Your task to perform on an android device: change the clock display to digital Image 0: 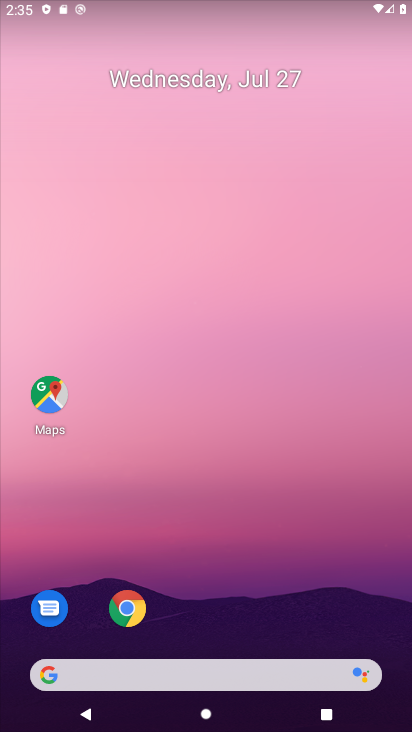
Step 0: drag from (234, 577) to (290, 10)
Your task to perform on an android device: change the clock display to digital Image 1: 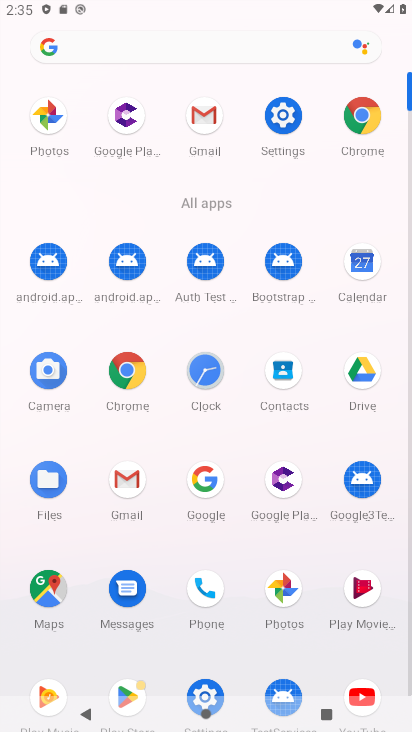
Step 1: click (197, 369)
Your task to perform on an android device: change the clock display to digital Image 2: 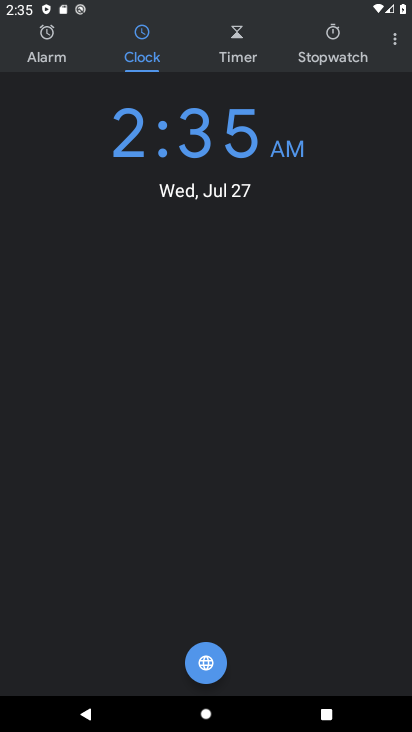
Step 2: click (395, 33)
Your task to perform on an android device: change the clock display to digital Image 3: 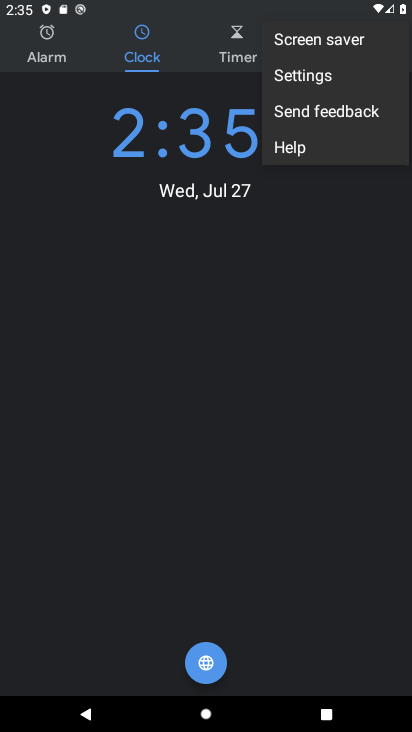
Step 3: click (322, 75)
Your task to perform on an android device: change the clock display to digital Image 4: 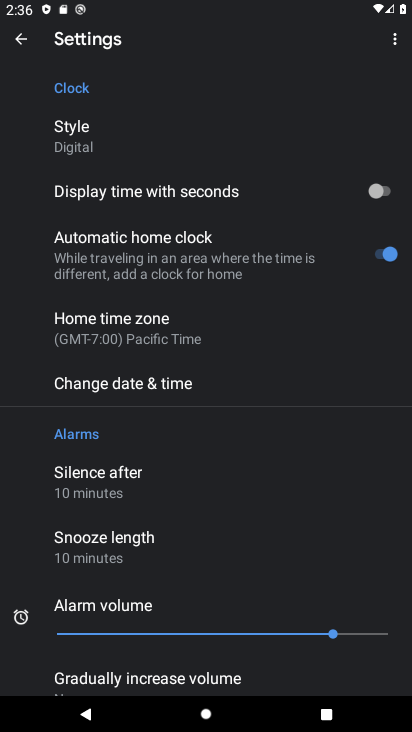
Step 4: click (56, 125)
Your task to perform on an android device: change the clock display to digital Image 5: 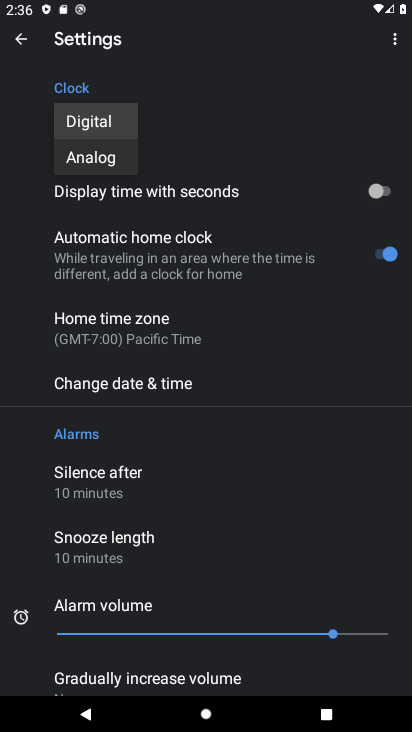
Step 5: click (114, 125)
Your task to perform on an android device: change the clock display to digital Image 6: 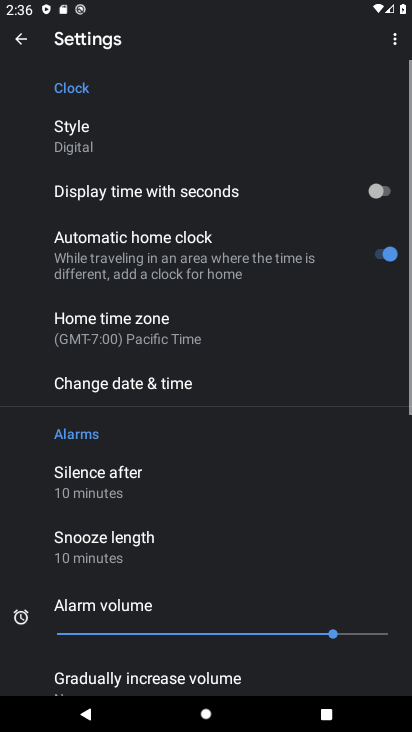
Step 6: task complete